Your task to perform on an android device: Open Android settings Image 0: 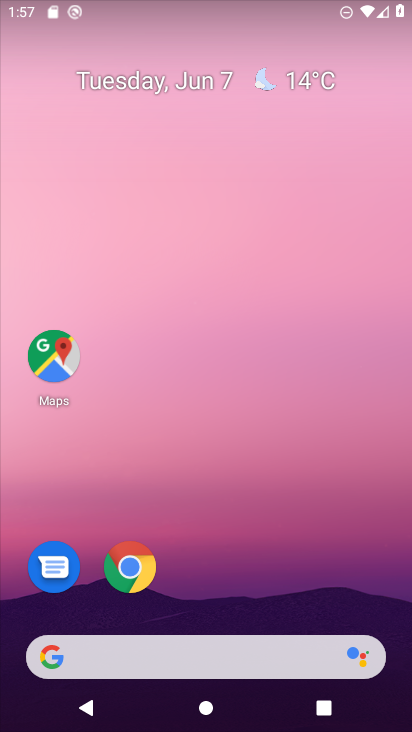
Step 0: drag from (341, 589) to (324, 51)
Your task to perform on an android device: Open Android settings Image 1: 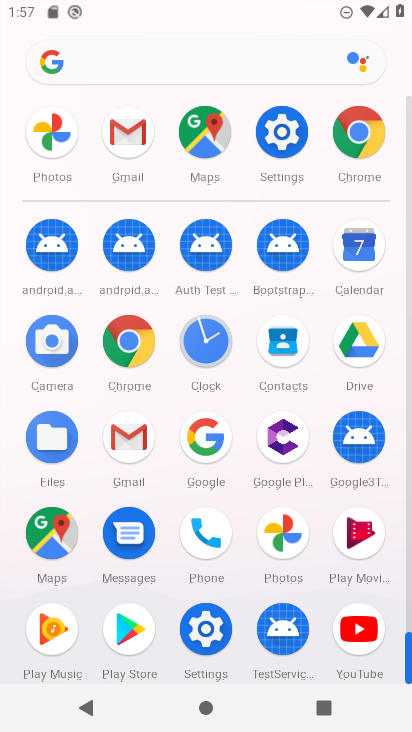
Step 1: click (293, 153)
Your task to perform on an android device: Open Android settings Image 2: 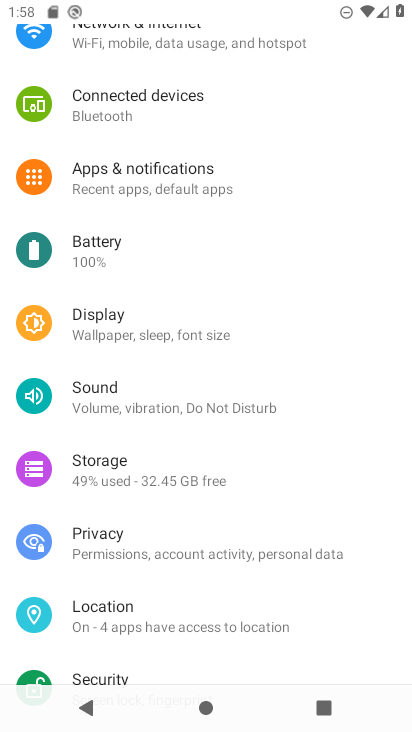
Step 2: task complete